Your task to perform on an android device: change text size in settings app Image 0: 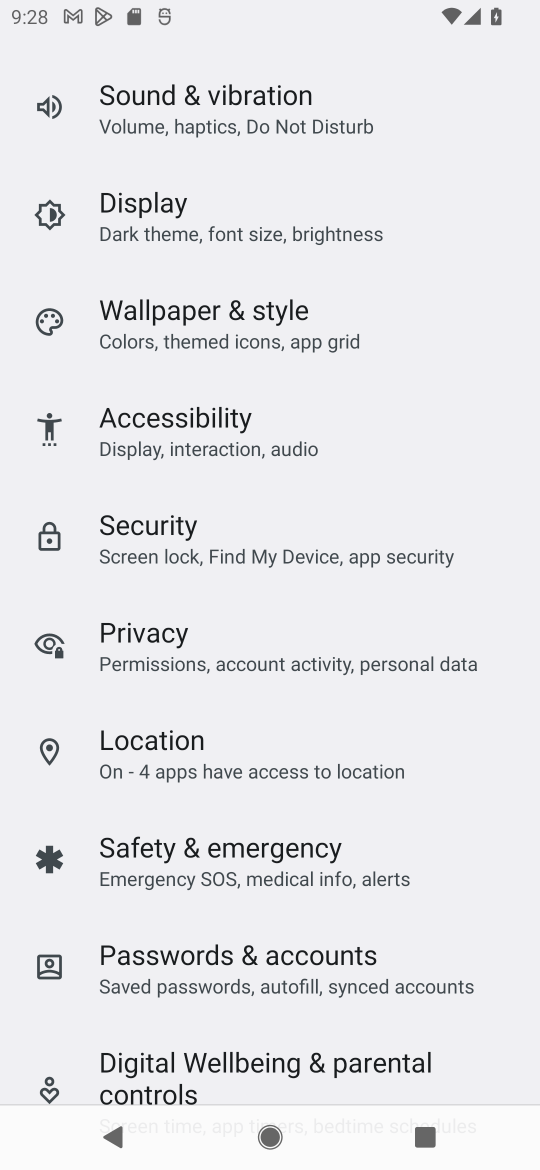
Step 0: press home button
Your task to perform on an android device: change text size in settings app Image 1: 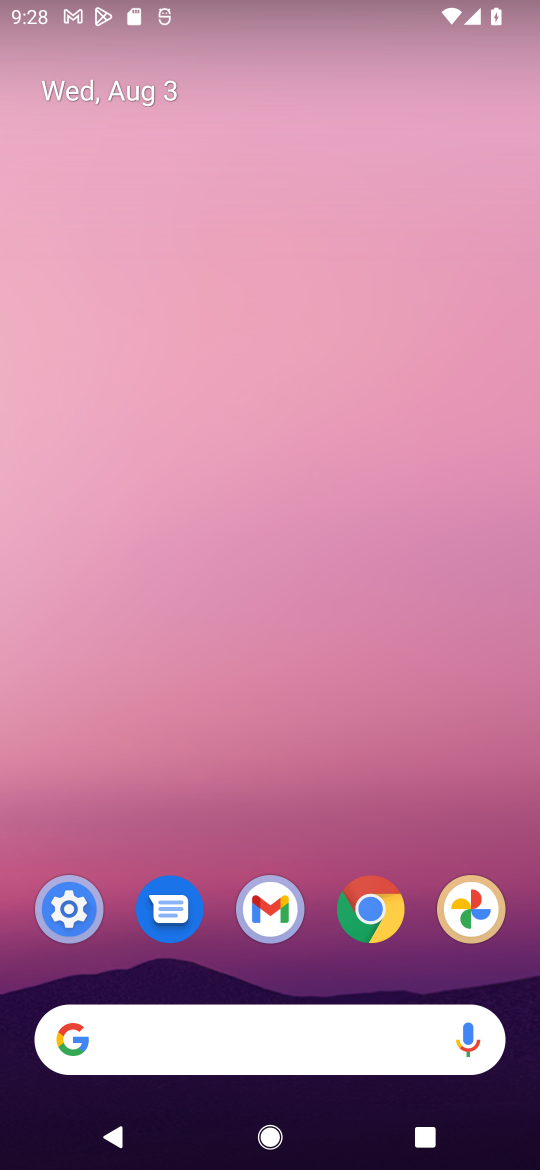
Step 1: drag from (423, 831) to (402, 406)
Your task to perform on an android device: change text size in settings app Image 2: 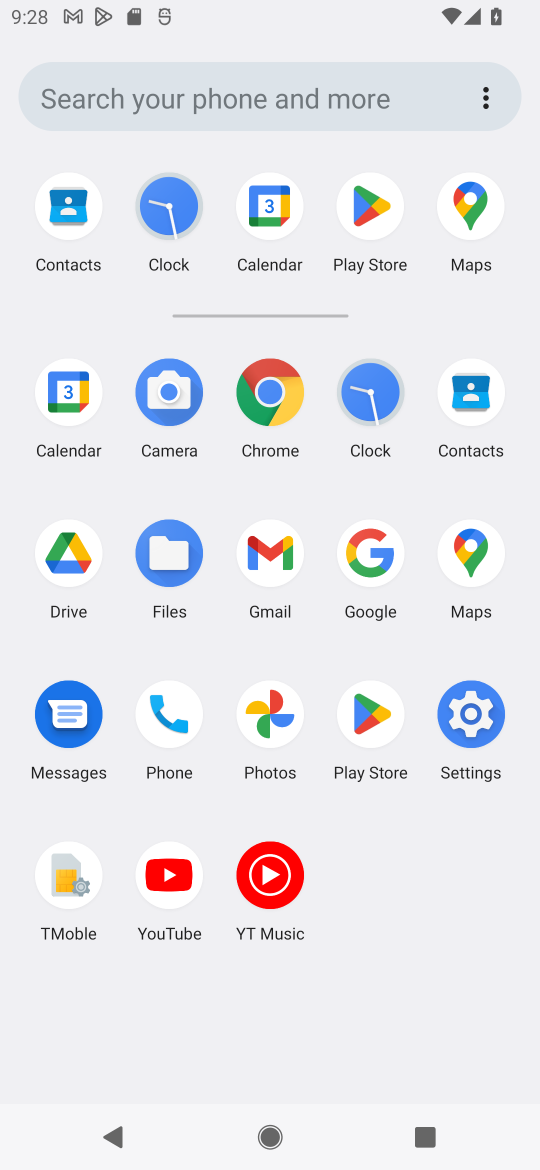
Step 2: click (486, 716)
Your task to perform on an android device: change text size in settings app Image 3: 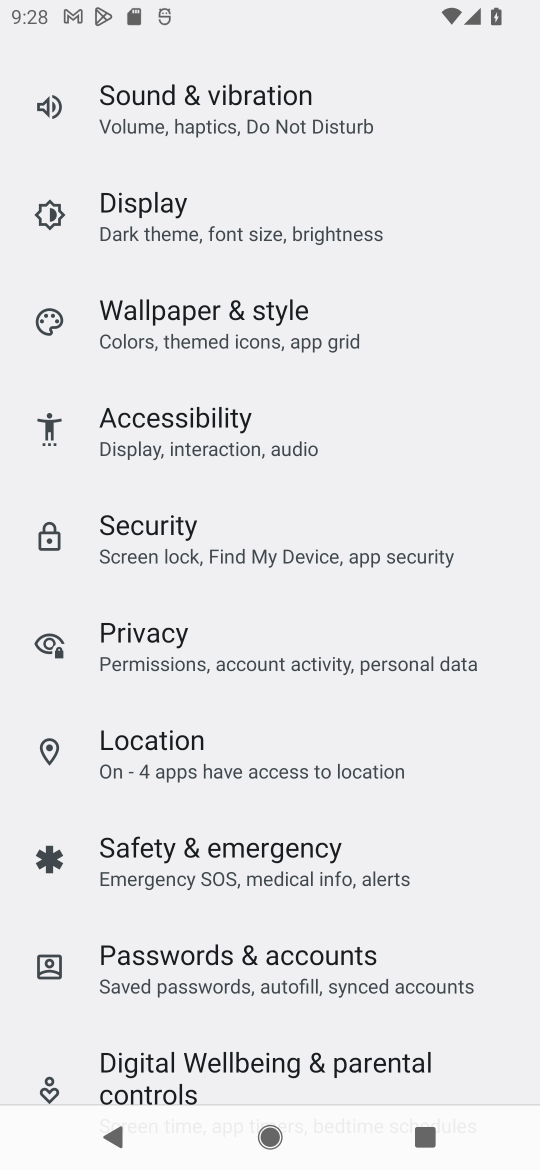
Step 3: drag from (468, 855) to (455, 737)
Your task to perform on an android device: change text size in settings app Image 4: 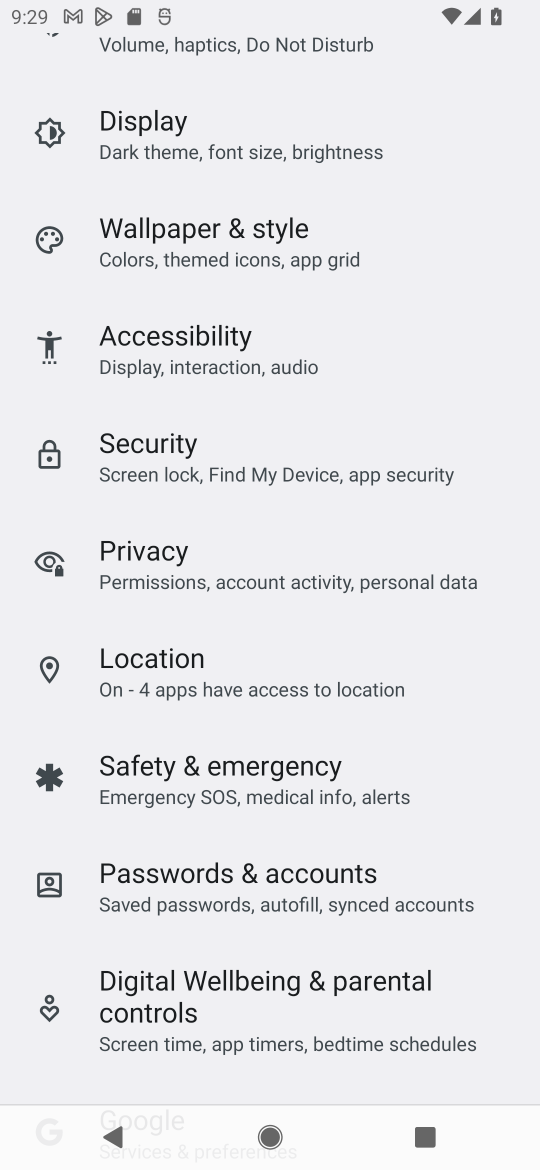
Step 4: drag from (487, 1007) to (491, 778)
Your task to perform on an android device: change text size in settings app Image 5: 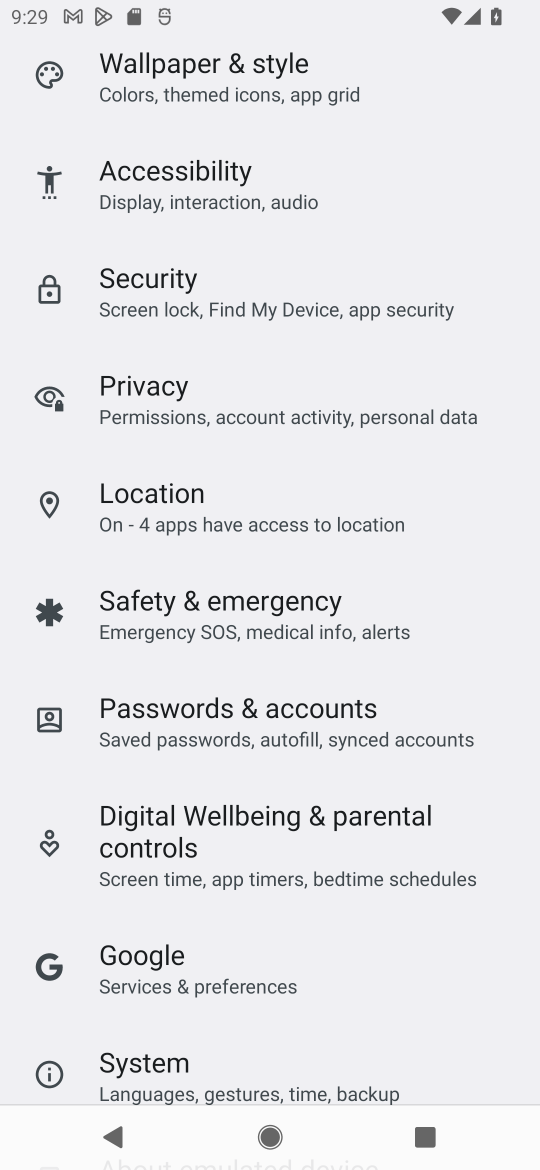
Step 5: drag from (429, 1024) to (444, 856)
Your task to perform on an android device: change text size in settings app Image 6: 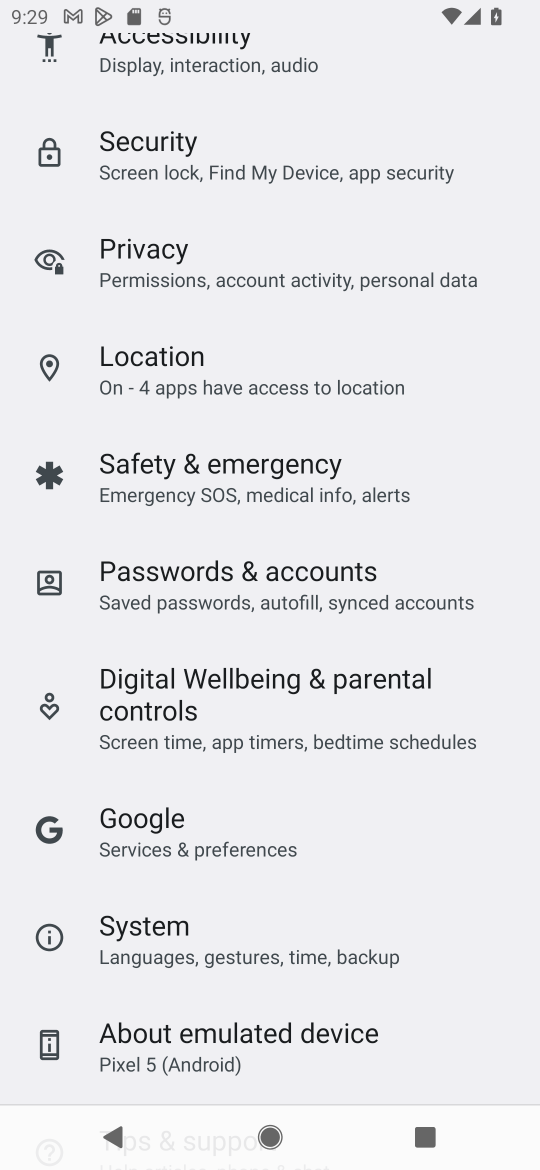
Step 6: drag from (449, 1048) to (440, 855)
Your task to perform on an android device: change text size in settings app Image 7: 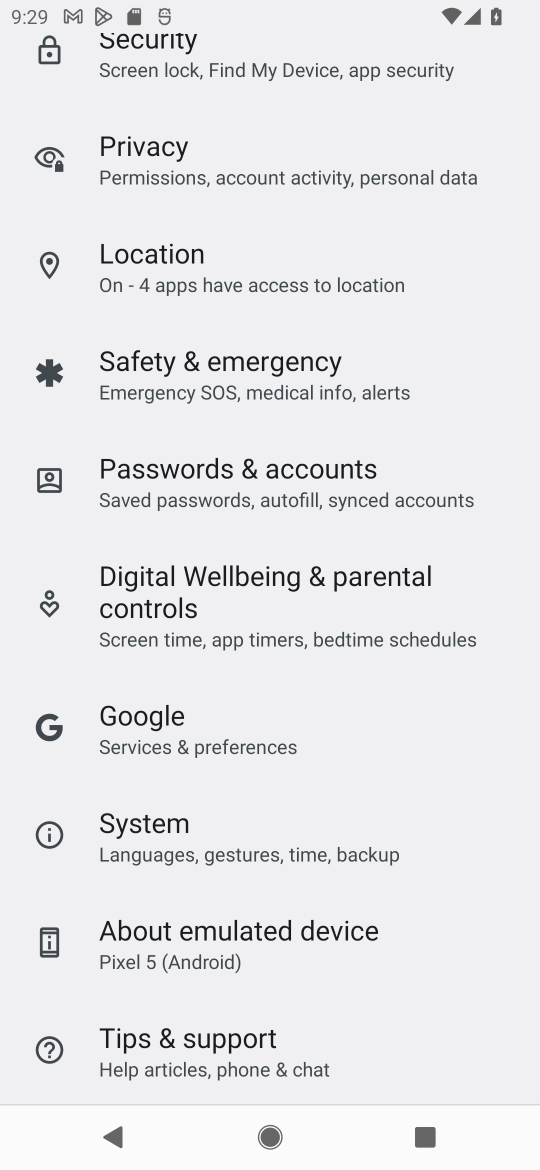
Step 7: drag from (465, 1026) to (454, 773)
Your task to perform on an android device: change text size in settings app Image 8: 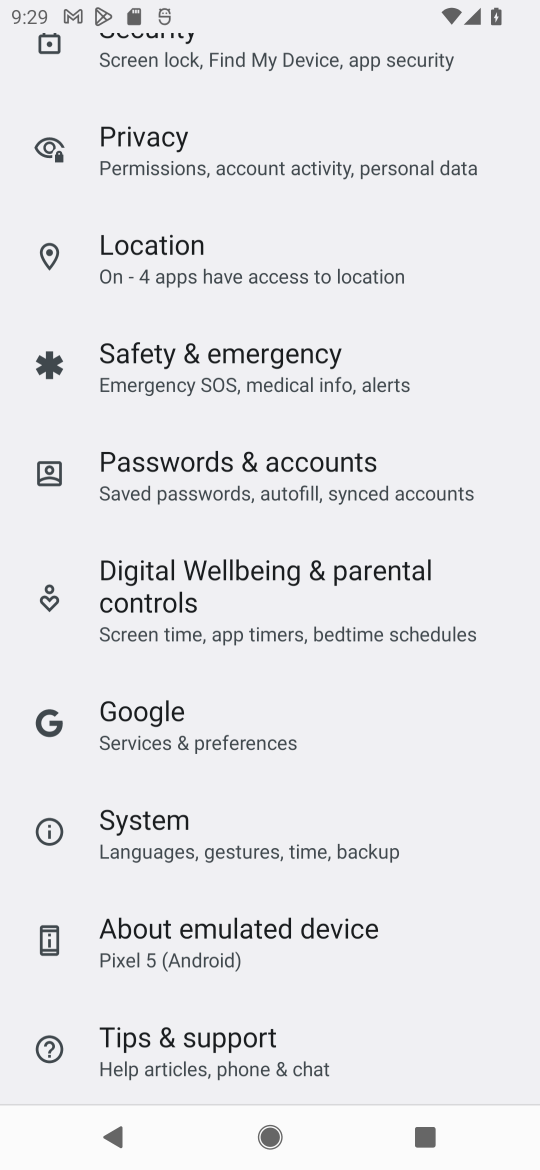
Step 8: drag from (457, 715) to (455, 800)
Your task to perform on an android device: change text size in settings app Image 9: 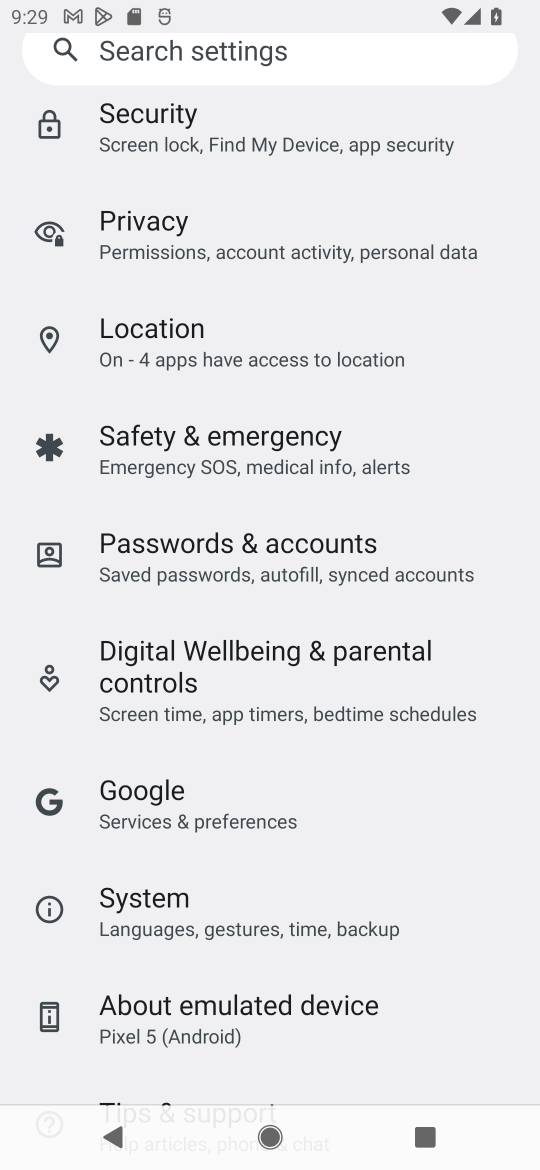
Step 9: drag from (459, 614) to (464, 785)
Your task to perform on an android device: change text size in settings app Image 10: 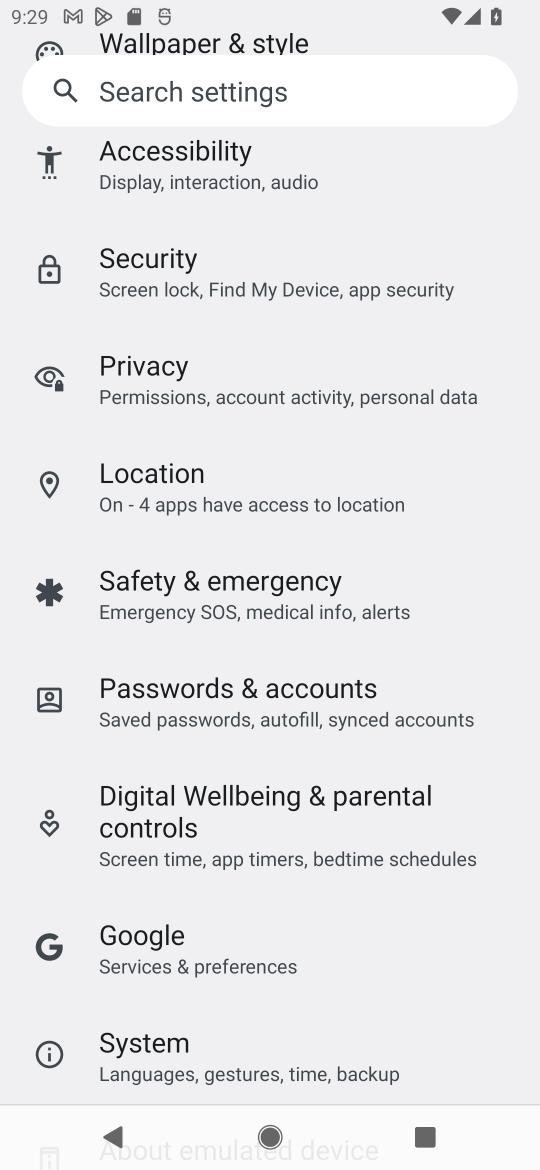
Step 10: drag from (465, 571) to (484, 756)
Your task to perform on an android device: change text size in settings app Image 11: 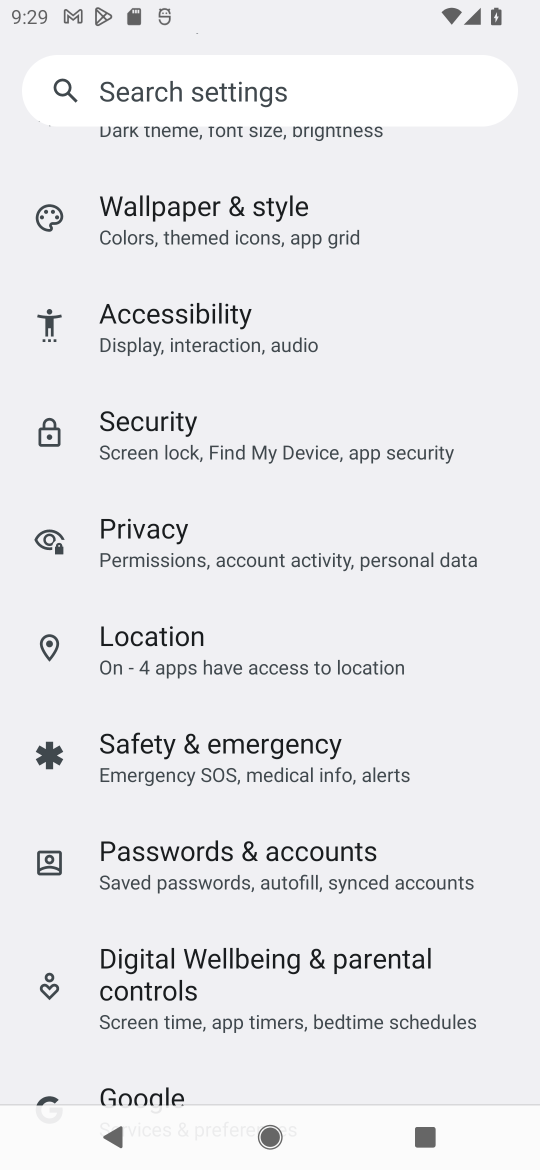
Step 11: drag from (474, 648) to (486, 758)
Your task to perform on an android device: change text size in settings app Image 12: 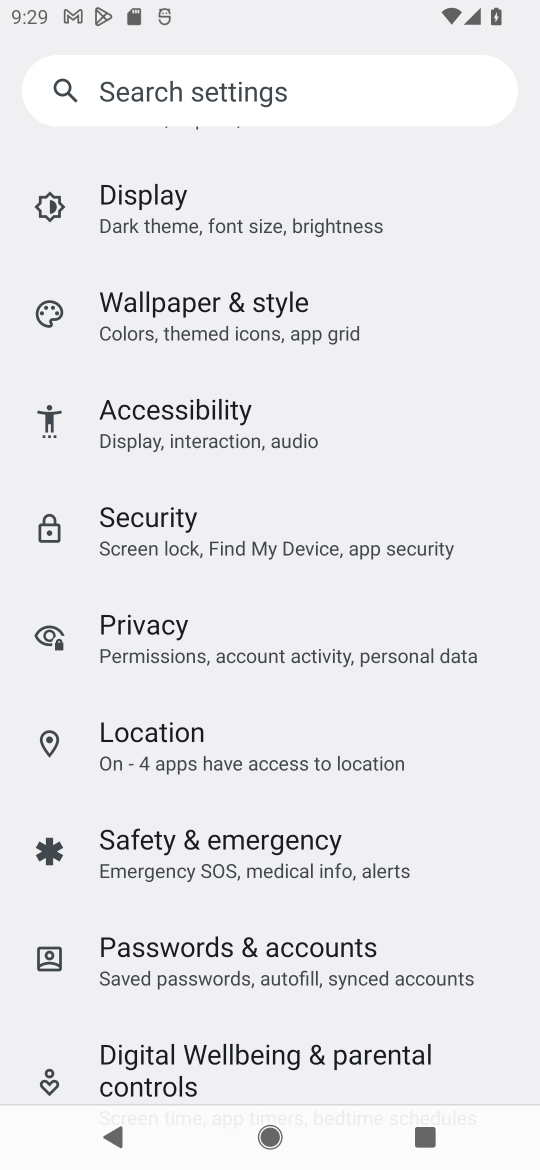
Step 12: drag from (479, 592) to (496, 738)
Your task to perform on an android device: change text size in settings app Image 13: 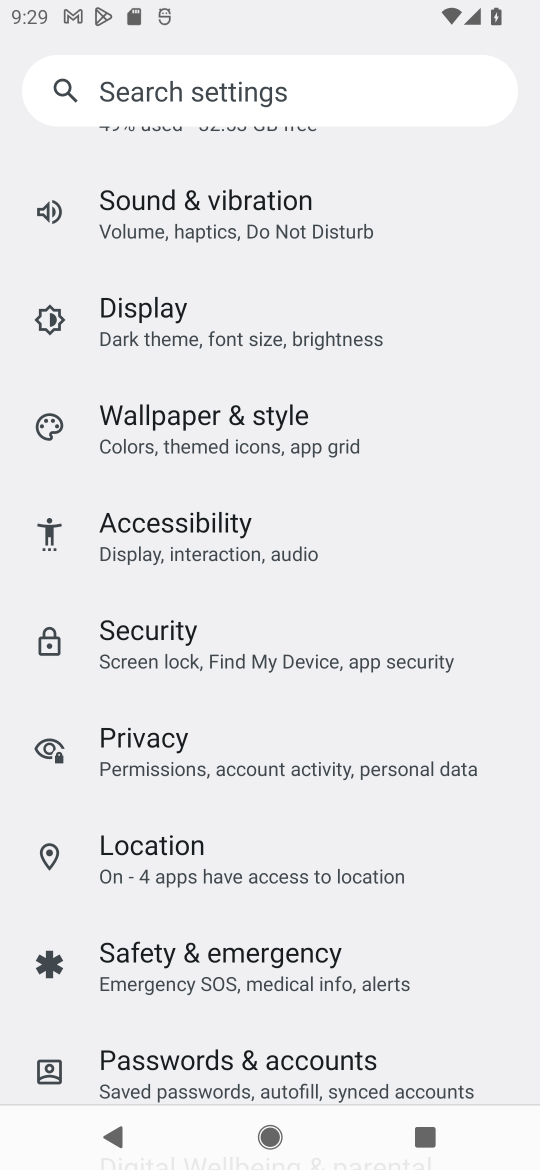
Step 13: drag from (469, 533) to (469, 689)
Your task to perform on an android device: change text size in settings app Image 14: 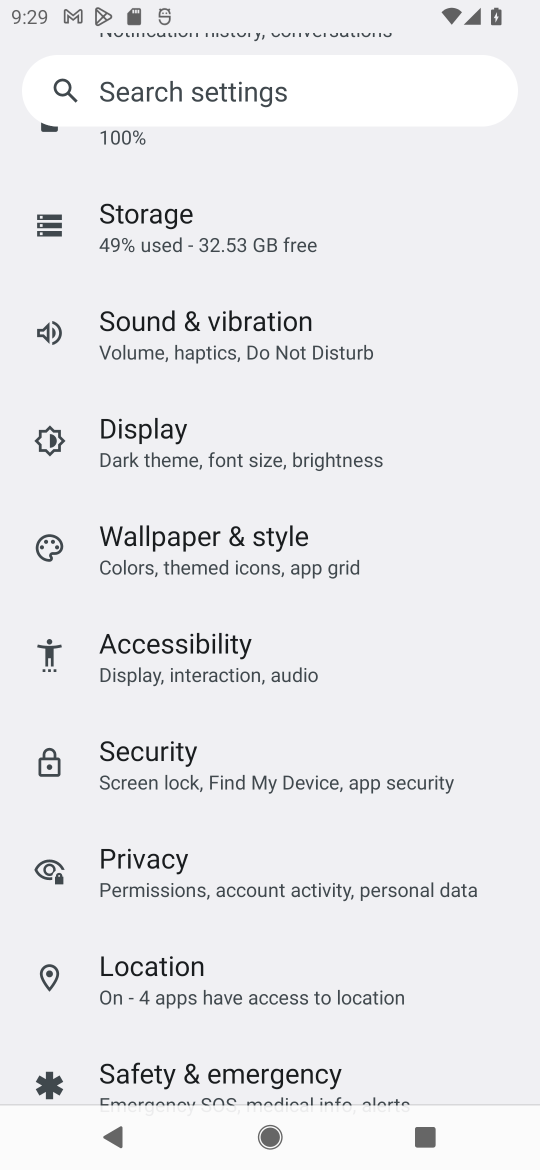
Step 14: drag from (445, 546) to (445, 687)
Your task to perform on an android device: change text size in settings app Image 15: 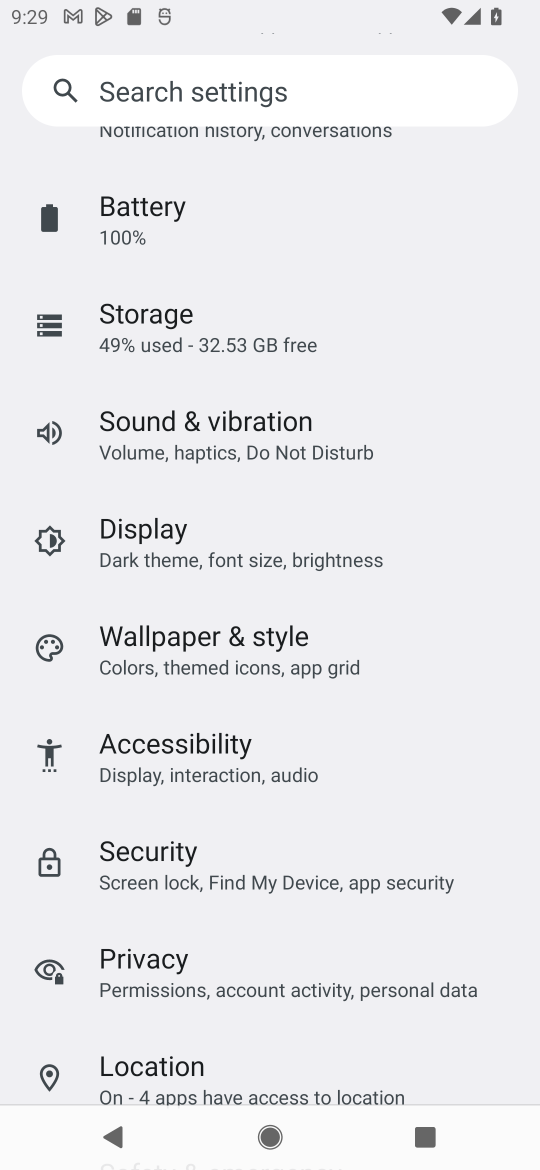
Step 15: drag from (429, 515) to (436, 631)
Your task to perform on an android device: change text size in settings app Image 16: 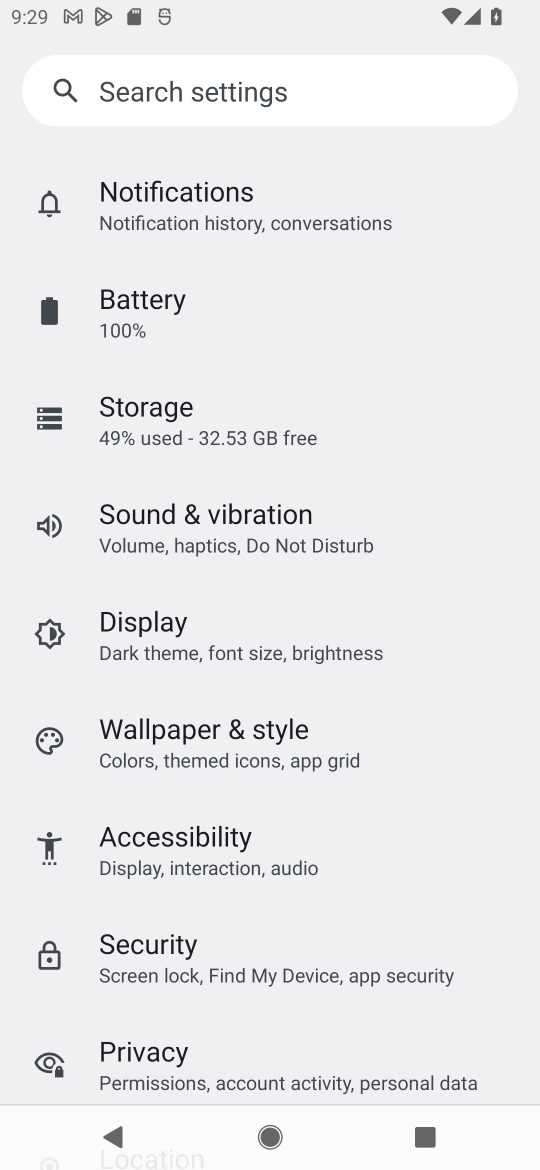
Step 16: click (362, 602)
Your task to perform on an android device: change text size in settings app Image 17: 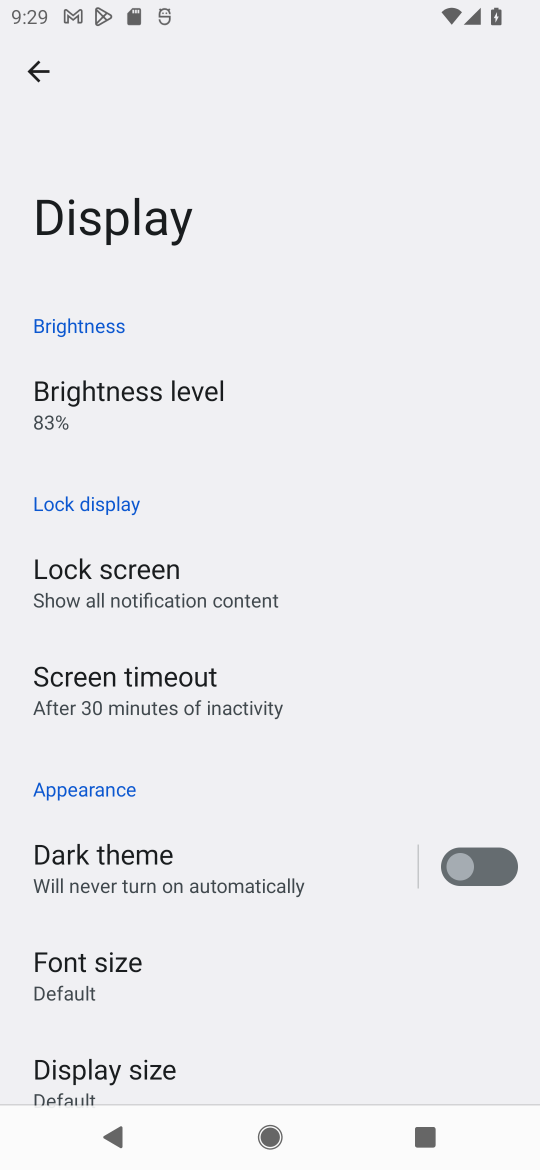
Step 17: drag from (300, 836) to (311, 561)
Your task to perform on an android device: change text size in settings app Image 18: 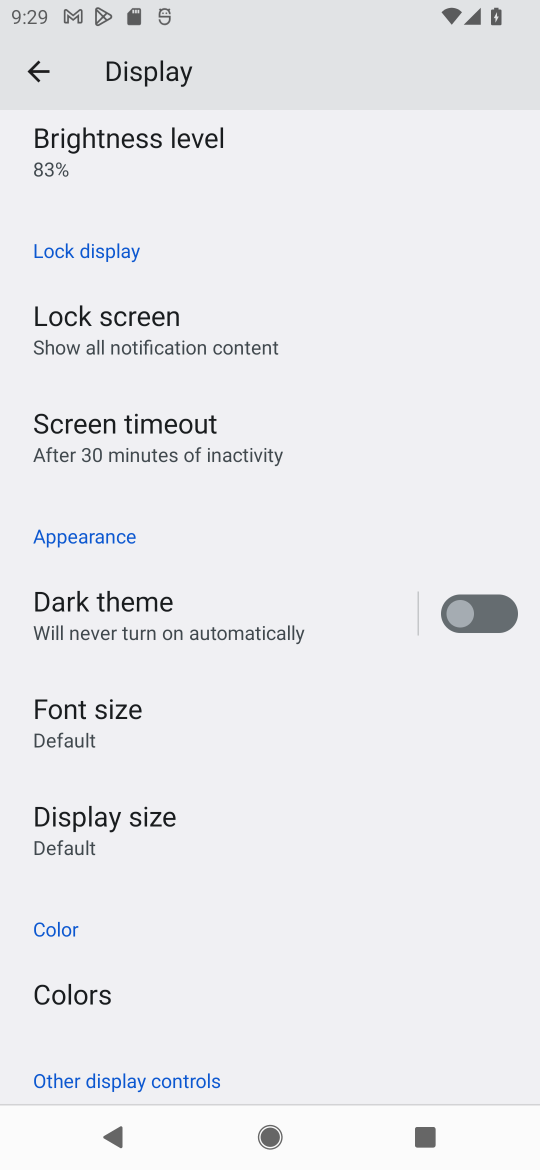
Step 18: click (264, 720)
Your task to perform on an android device: change text size in settings app Image 19: 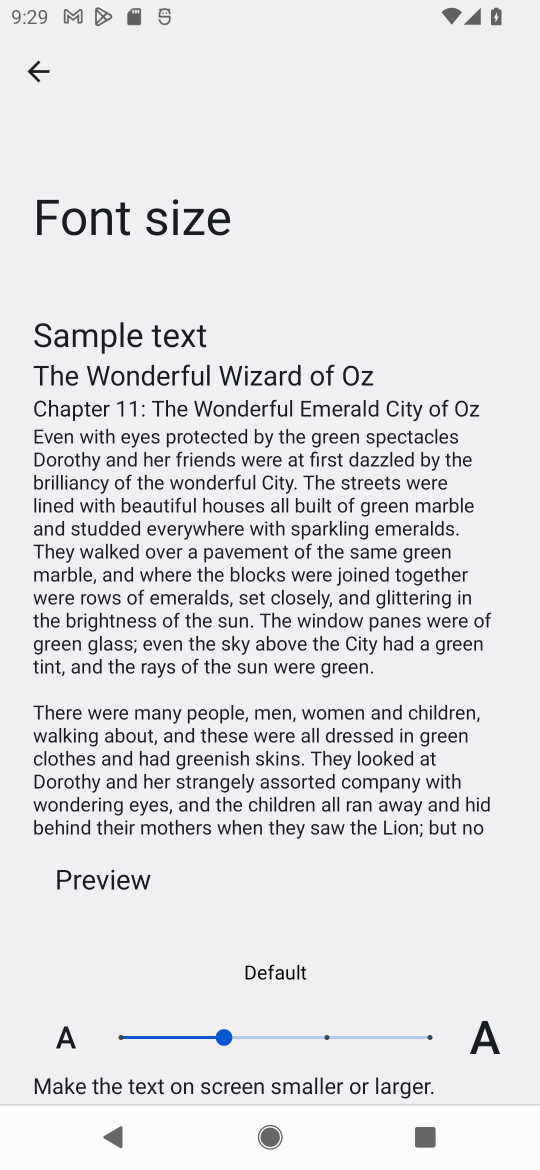
Step 19: click (431, 1037)
Your task to perform on an android device: change text size in settings app Image 20: 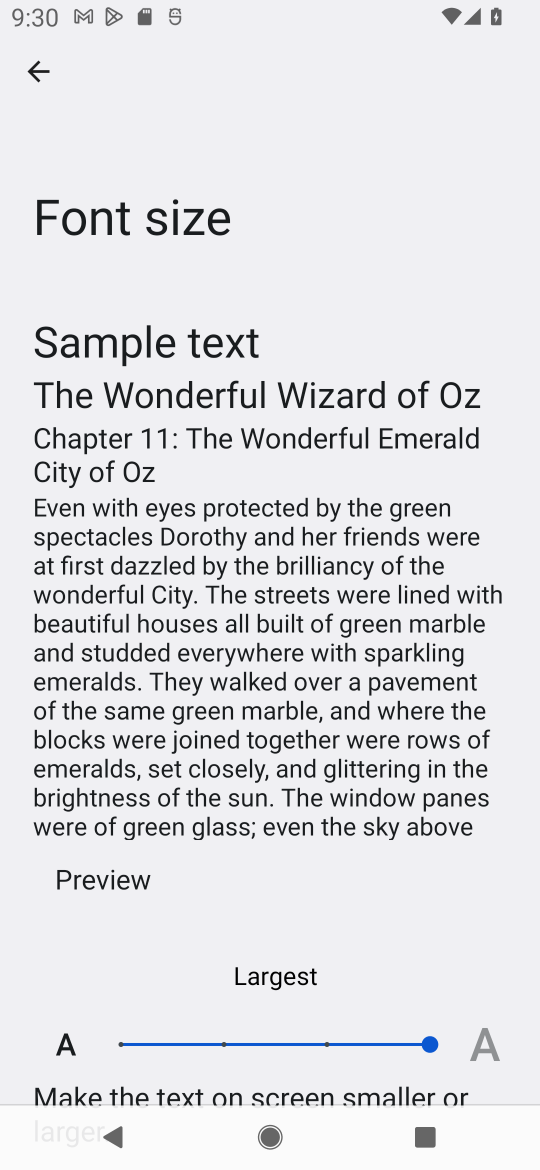
Step 20: task complete